Your task to perform on an android device: Open settings on Google Maps Image 0: 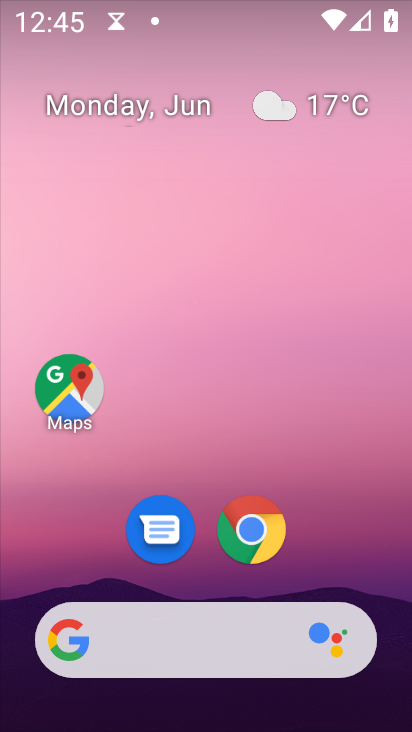
Step 0: drag from (315, 280) to (47, 729)
Your task to perform on an android device: Open settings on Google Maps Image 1: 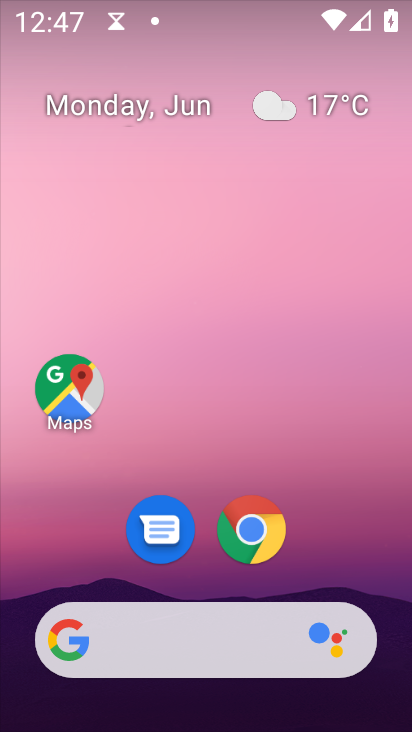
Step 1: drag from (342, 558) to (398, 108)
Your task to perform on an android device: Open settings on Google Maps Image 2: 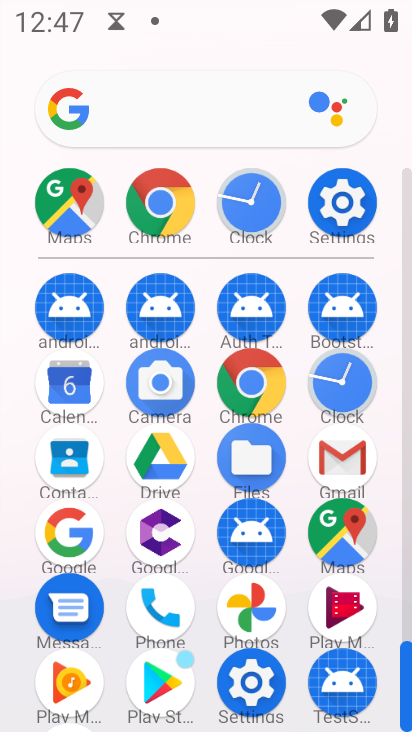
Step 2: click (342, 529)
Your task to perform on an android device: Open settings on Google Maps Image 3: 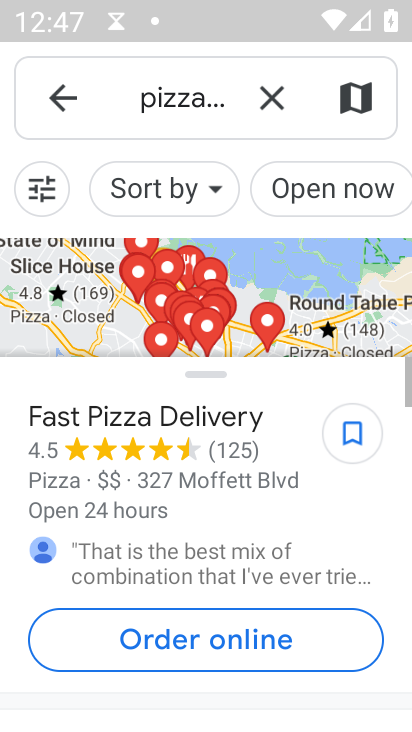
Step 3: click (52, 89)
Your task to perform on an android device: Open settings on Google Maps Image 4: 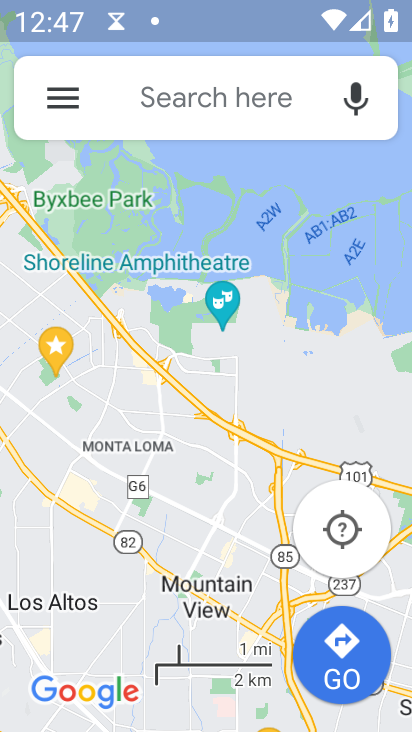
Step 4: click (52, 88)
Your task to perform on an android device: Open settings on Google Maps Image 5: 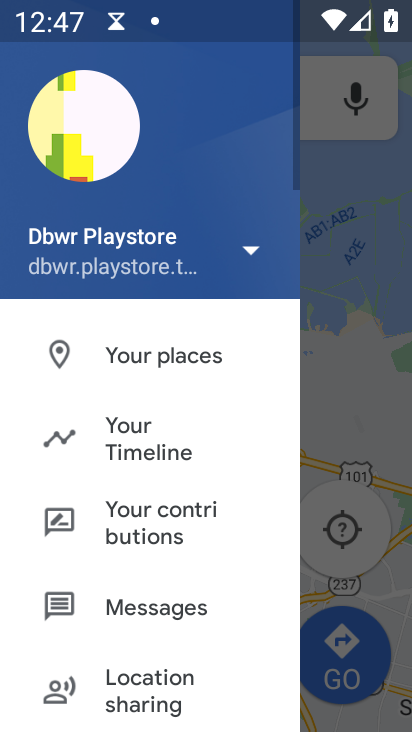
Step 5: drag from (91, 635) to (155, 277)
Your task to perform on an android device: Open settings on Google Maps Image 6: 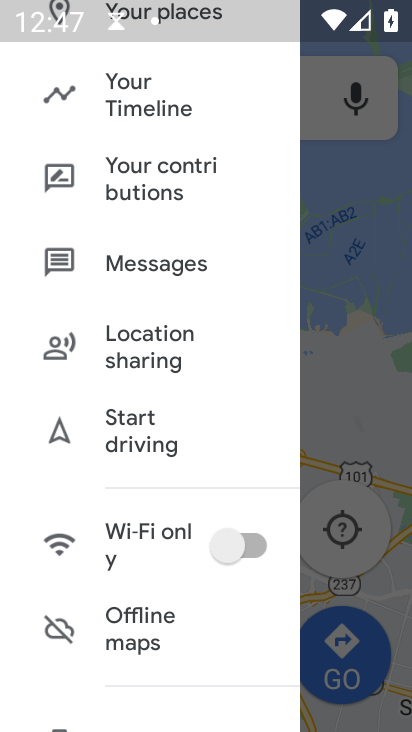
Step 6: drag from (122, 566) to (202, 125)
Your task to perform on an android device: Open settings on Google Maps Image 7: 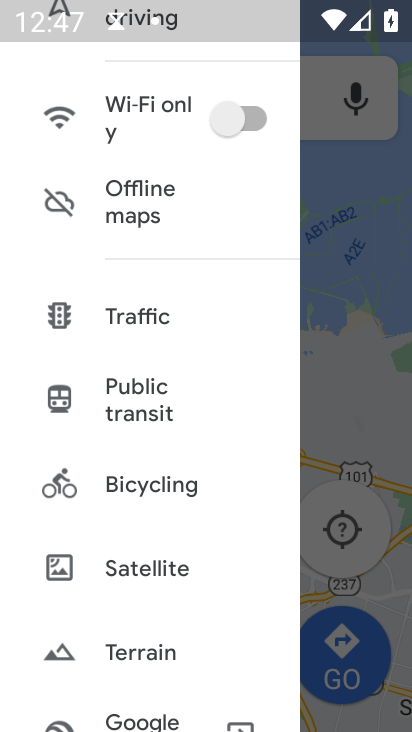
Step 7: drag from (116, 652) to (146, 81)
Your task to perform on an android device: Open settings on Google Maps Image 8: 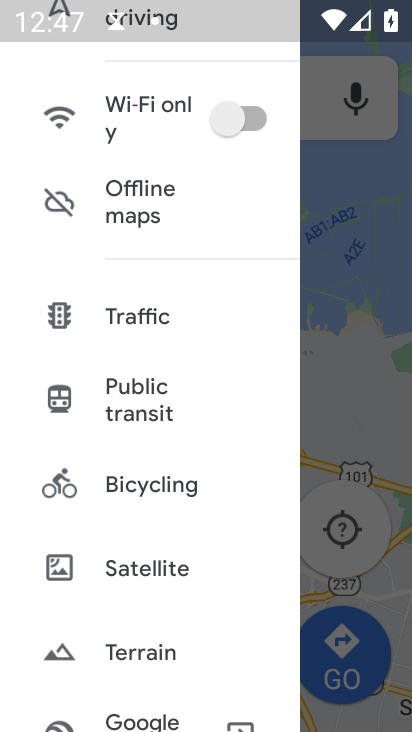
Step 8: drag from (119, 469) to (198, 95)
Your task to perform on an android device: Open settings on Google Maps Image 9: 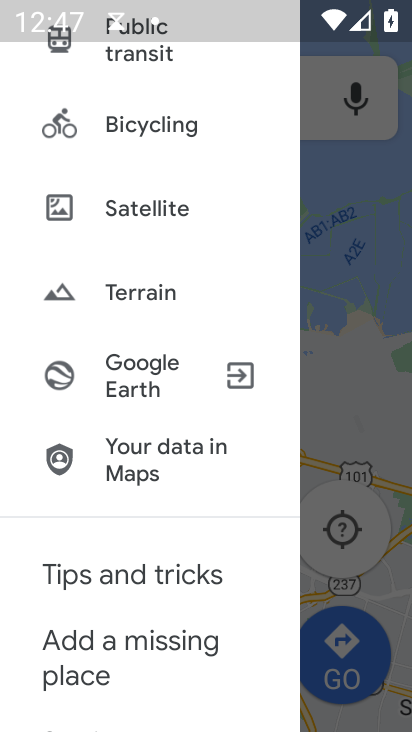
Step 9: drag from (95, 620) to (160, 202)
Your task to perform on an android device: Open settings on Google Maps Image 10: 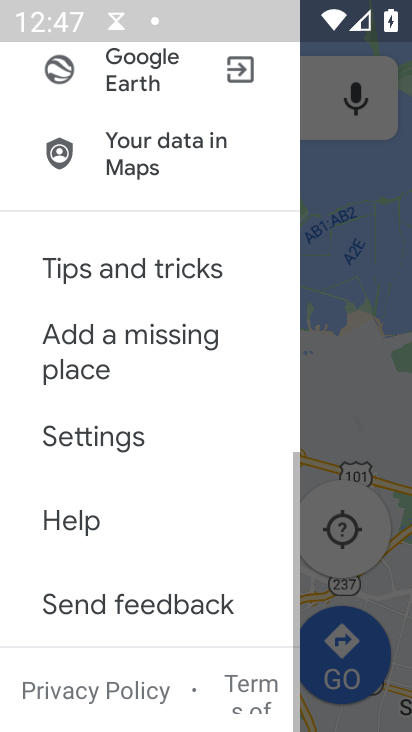
Step 10: drag from (65, 521) to (150, 172)
Your task to perform on an android device: Open settings on Google Maps Image 11: 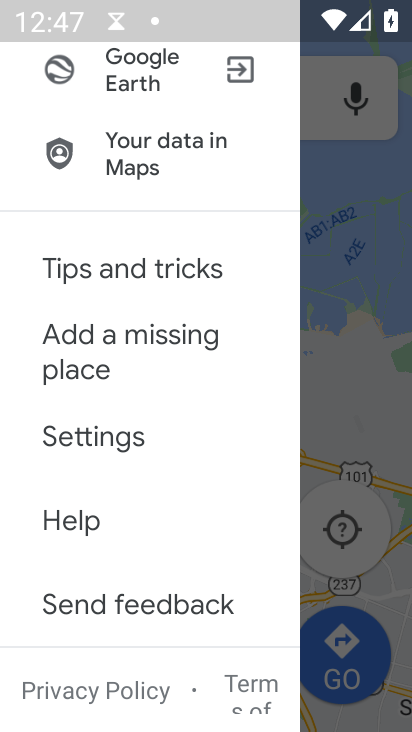
Step 11: click (80, 428)
Your task to perform on an android device: Open settings on Google Maps Image 12: 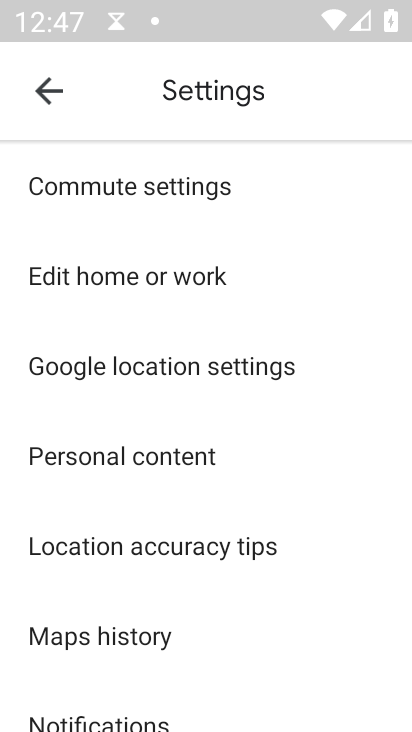
Step 12: task complete